Your task to perform on an android device: Go to Reddit.com Image 0: 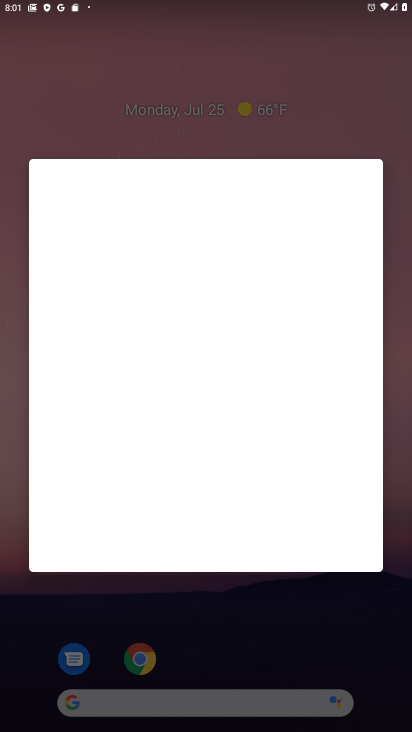
Step 0: click (231, 647)
Your task to perform on an android device: Go to Reddit.com Image 1: 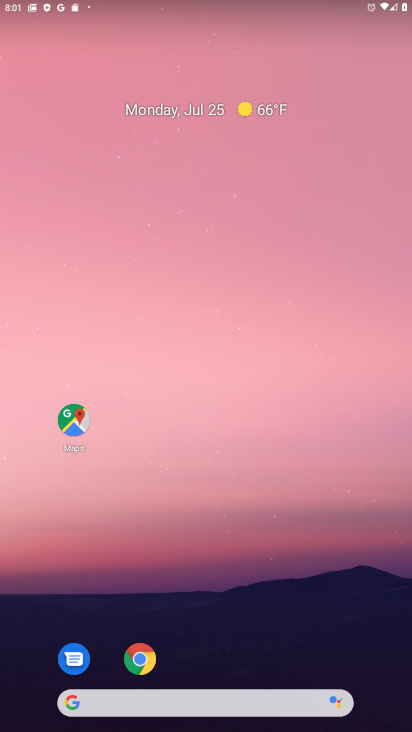
Step 1: click (153, 651)
Your task to perform on an android device: Go to Reddit.com Image 2: 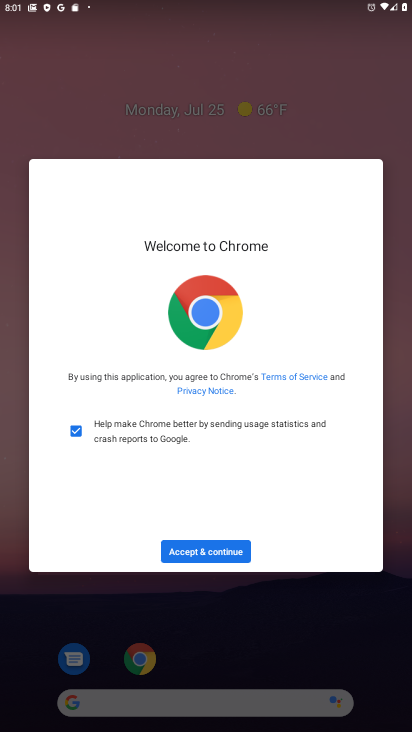
Step 2: click (188, 541)
Your task to perform on an android device: Go to Reddit.com Image 3: 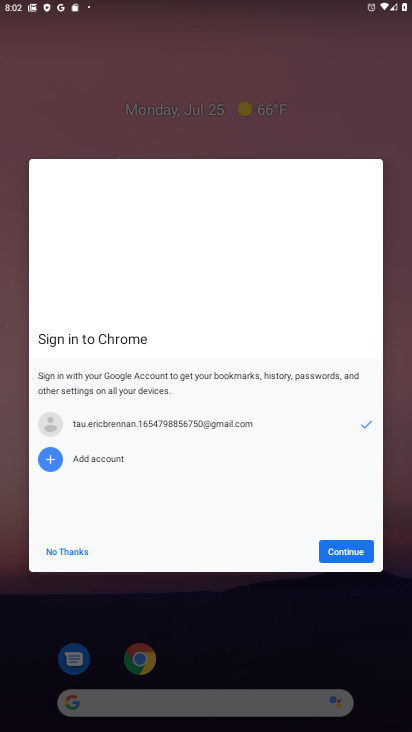
Step 3: click (354, 550)
Your task to perform on an android device: Go to Reddit.com Image 4: 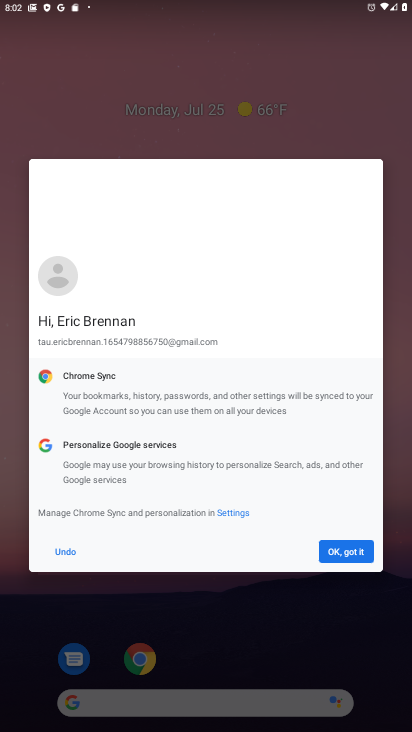
Step 4: click (354, 550)
Your task to perform on an android device: Go to Reddit.com Image 5: 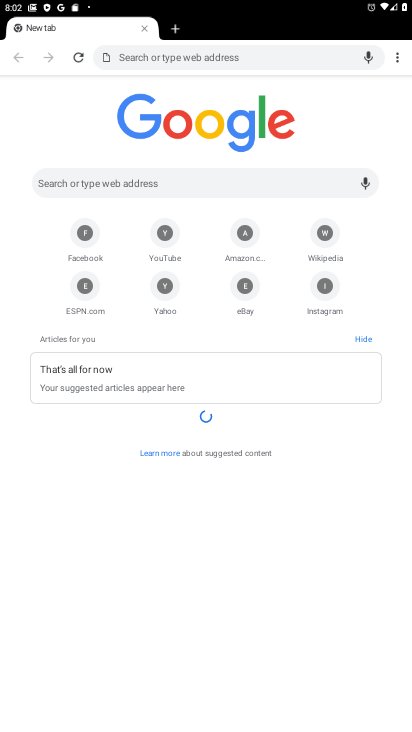
Step 5: click (178, 26)
Your task to perform on an android device: Go to Reddit.com Image 6: 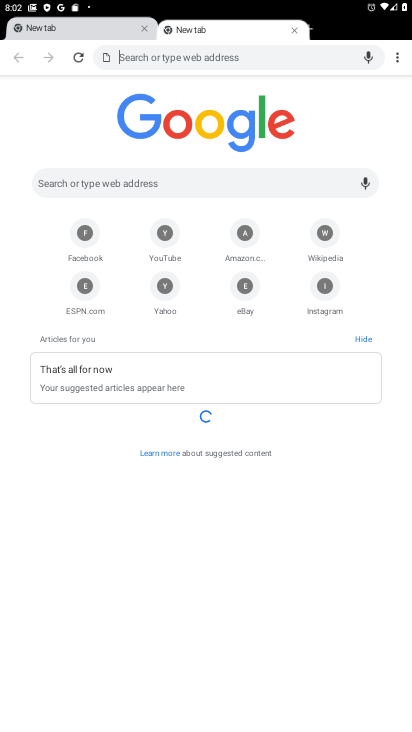
Step 6: click (178, 26)
Your task to perform on an android device: Go to Reddit.com Image 7: 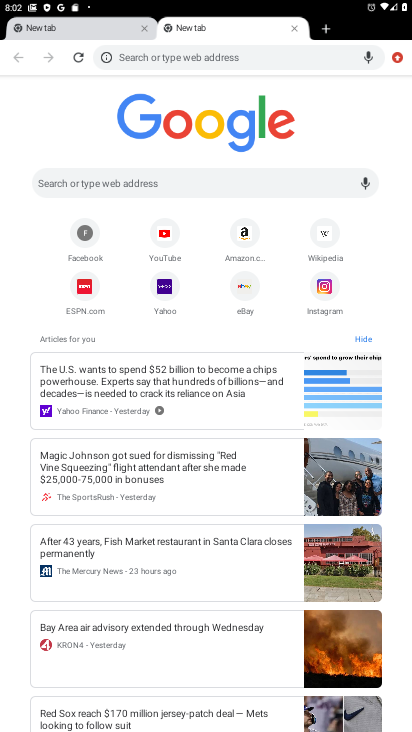
Step 7: type "reddit"
Your task to perform on an android device: Go to Reddit.com Image 8: 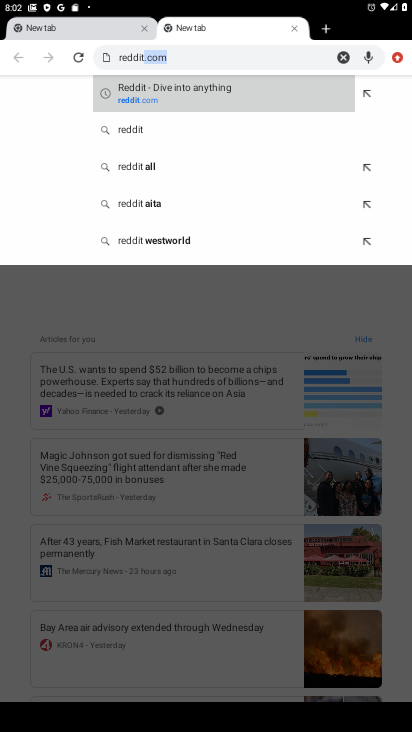
Step 8: click (183, 83)
Your task to perform on an android device: Go to Reddit.com Image 9: 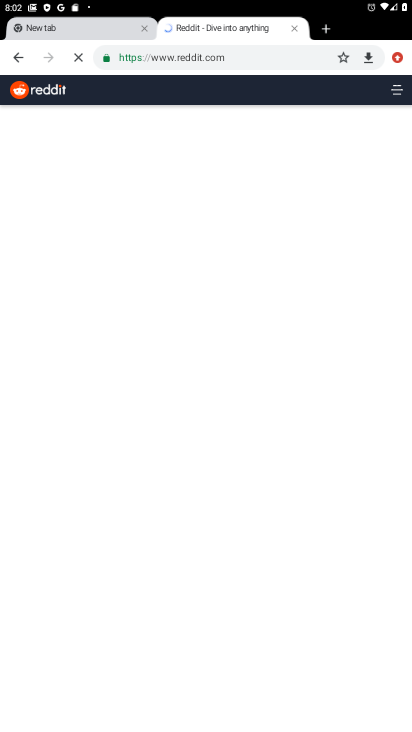
Step 9: task complete